Your task to perform on an android device: Open calendar and show me the fourth week of next month Image 0: 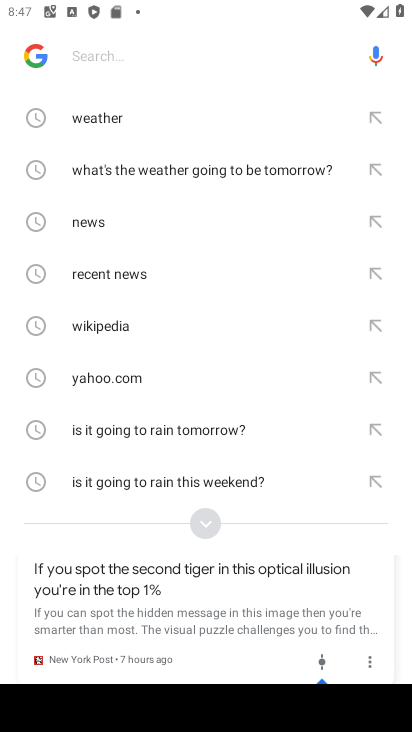
Step 0: press home button
Your task to perform on an android device: Open calendar and show me the fourth week of next month Image 1: 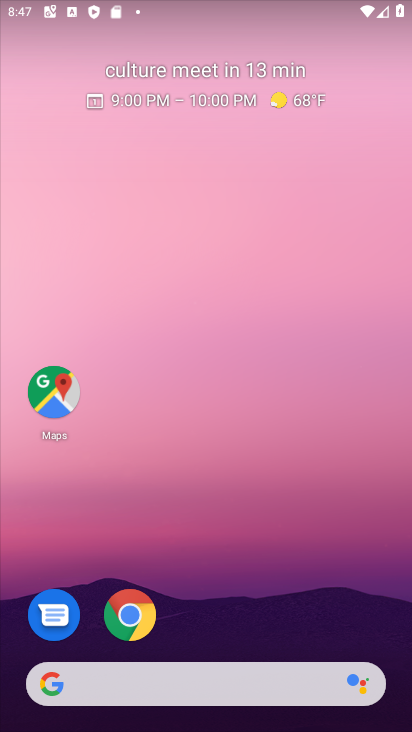
Step 1: drag from (391, 647) to (368, 84)
Your task to perform on an android device: Open calendar and show me the fourth week of next month Image 2: 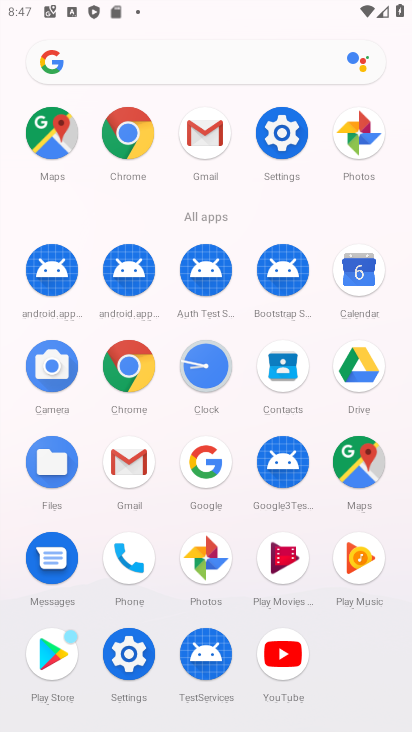
Step 2: click (351, 271)
Your task to perform on an android device: Open calendar and show me the fourth week of next month Image 3: 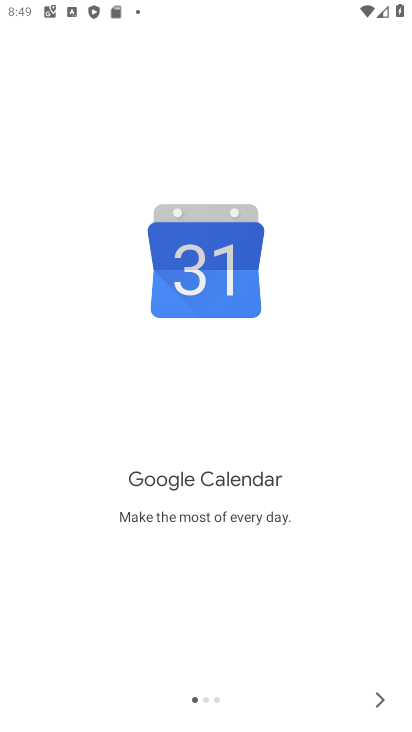
Step 3: click (373, 691)
Your task to perform on an android device: Open calendar and show me the fourth week of next month Image 4: 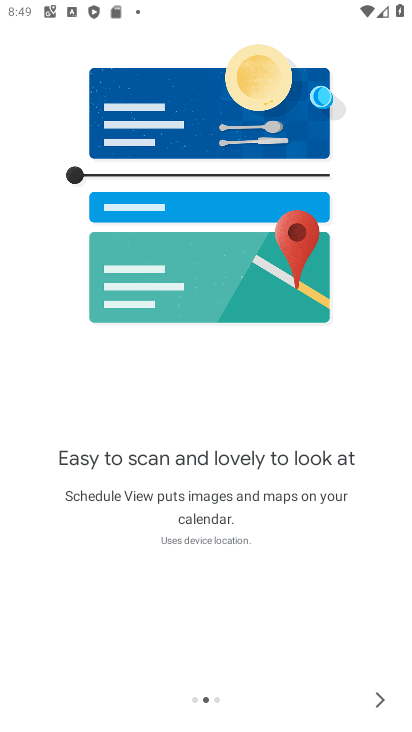
Step 4: click (375, 693)
Your task to perform on an android device: Open calendar and show me the fourth week of next month Image 5: 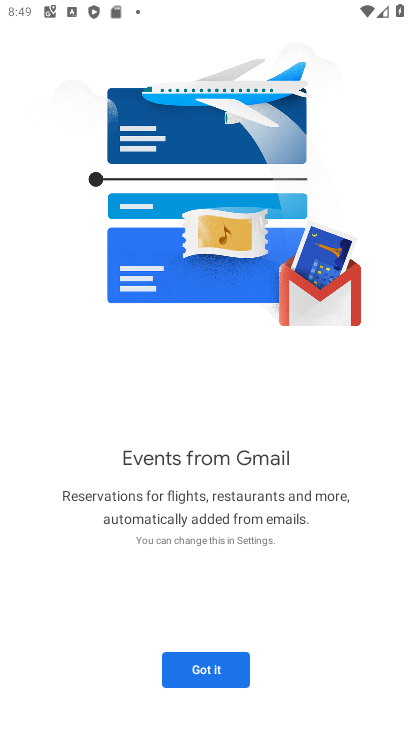
Step 5: click (212, 662)
Your task to perform on an android device: Open calendar and show me the fourth week of next month Image 6: 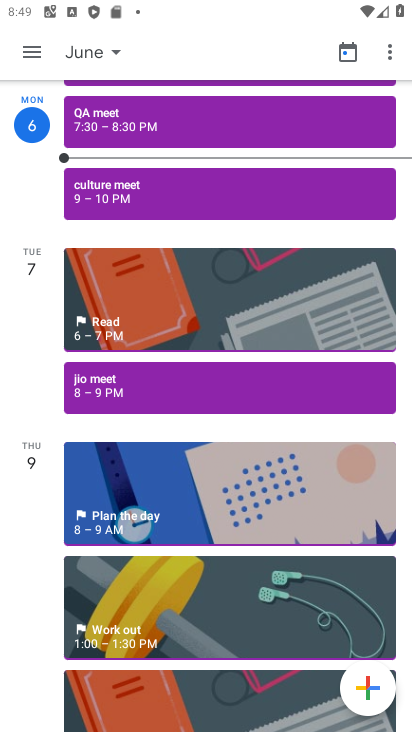
Step 6: click (115, 58)
Your task to perform on an android device: Open calendar and show me the fourth week of next month Image 7: 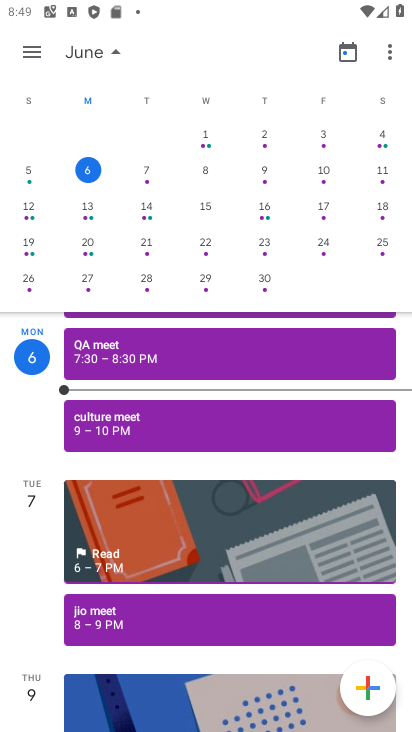
Step 7: drag from (385, 216) to (40, 165)
Your task to perform on an android device: Open calendar and show me the fourth week of next month Image 8: 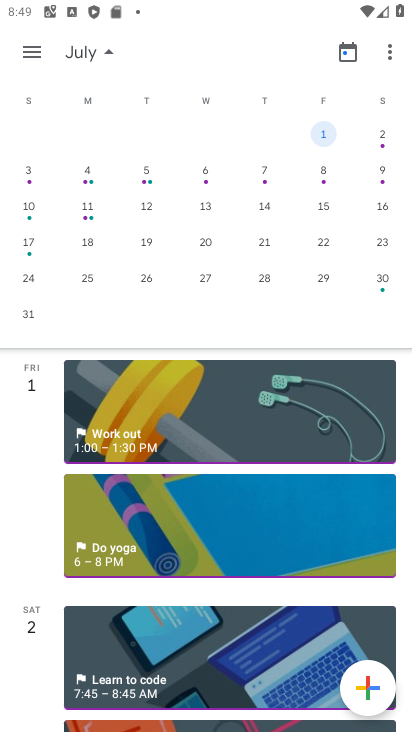
Step 8: click (204, 239)
Your task to perform on an android device: Open calendar and show me the fourth week of next month Image 9: 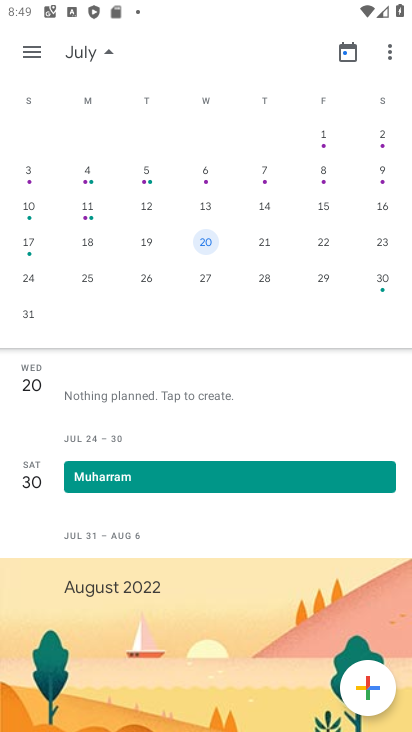
Step 9: click (21, 52)
Your task to perform on an android device: Open calendar and show me the fourth week of next month Image 10: 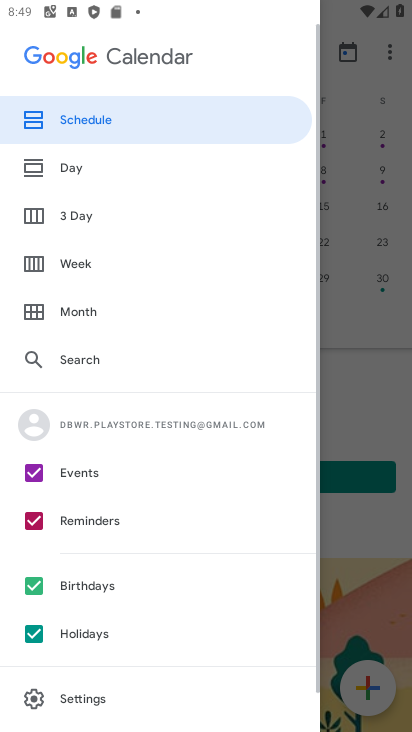
Step 10: click (68, 257)
Your task to perform on an android device: Open calendar and show me the fourth week of next month Image 11: 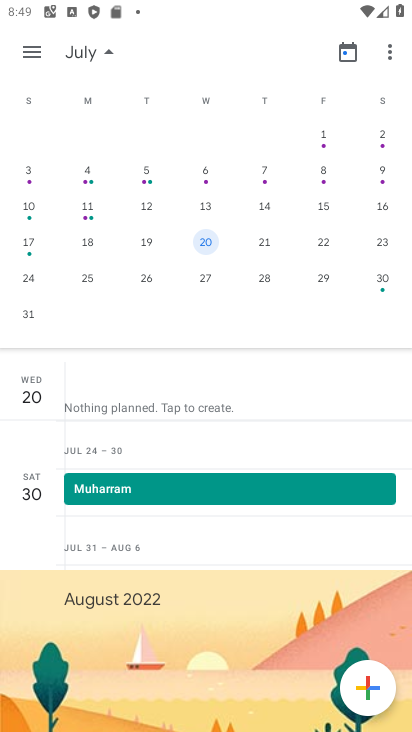
Step 11: task complete